Your task to perform on an android device: turn on the 24-hour format for clock Image 0: 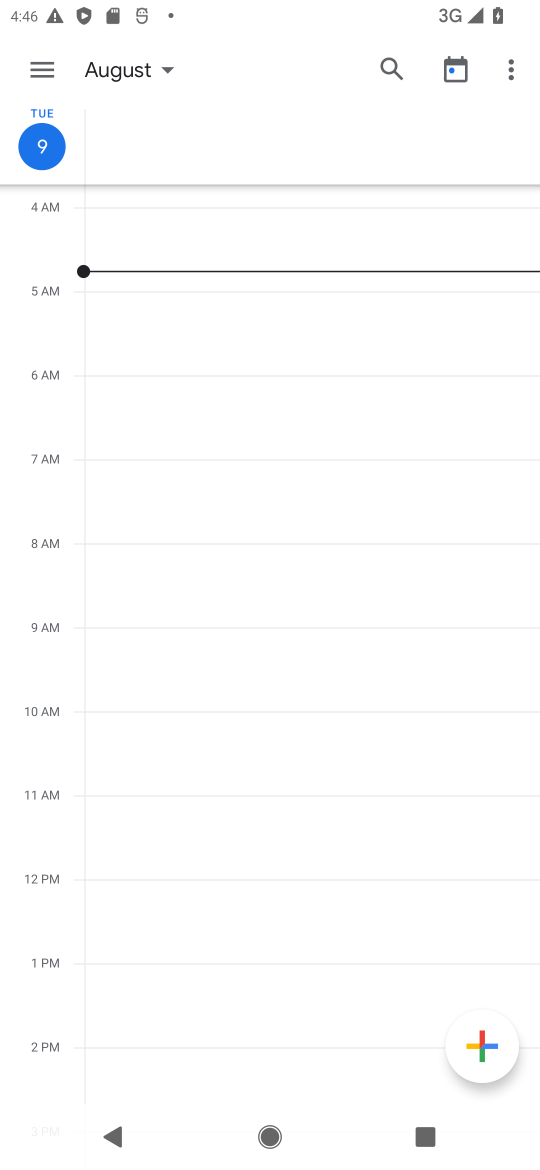
Step 0: press home button
Your task to perform on an android device: turn on the 24-hour format for clock Image 1: 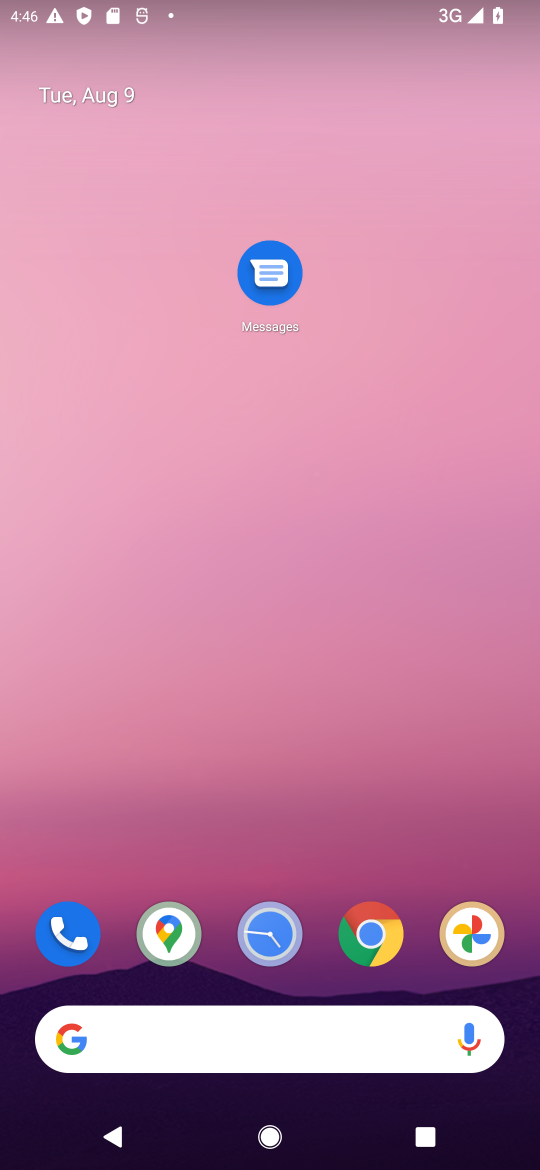
Step 1: click (278, 961)
Your task to perform on an android device: turn on the 24-hour format for clock Image 2: 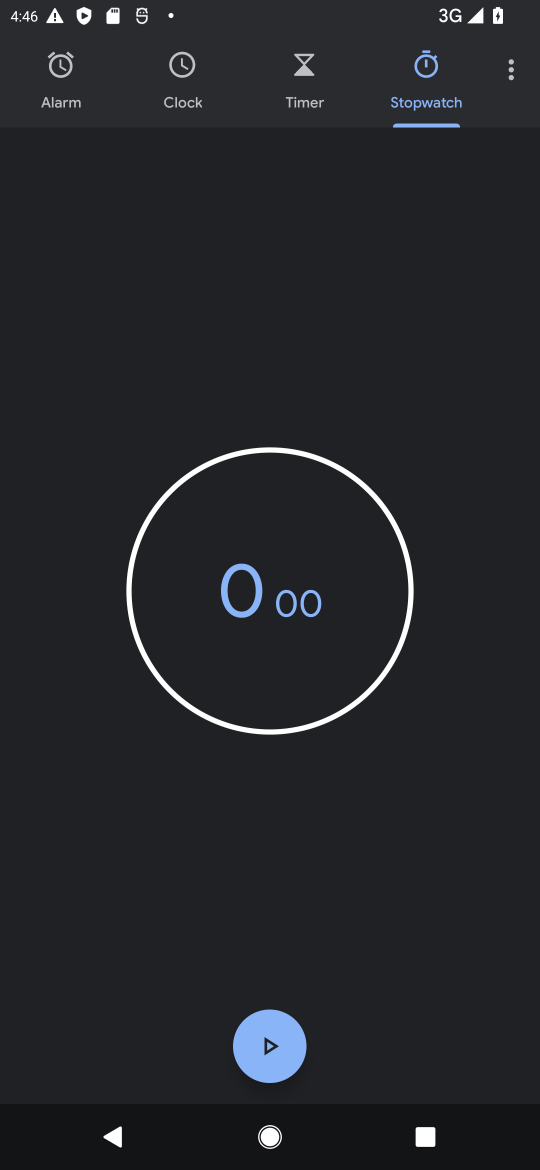
Step 2: click (517, 66)
Your task to perform on an android device: turn on the 24-hour format for clock Image 3: 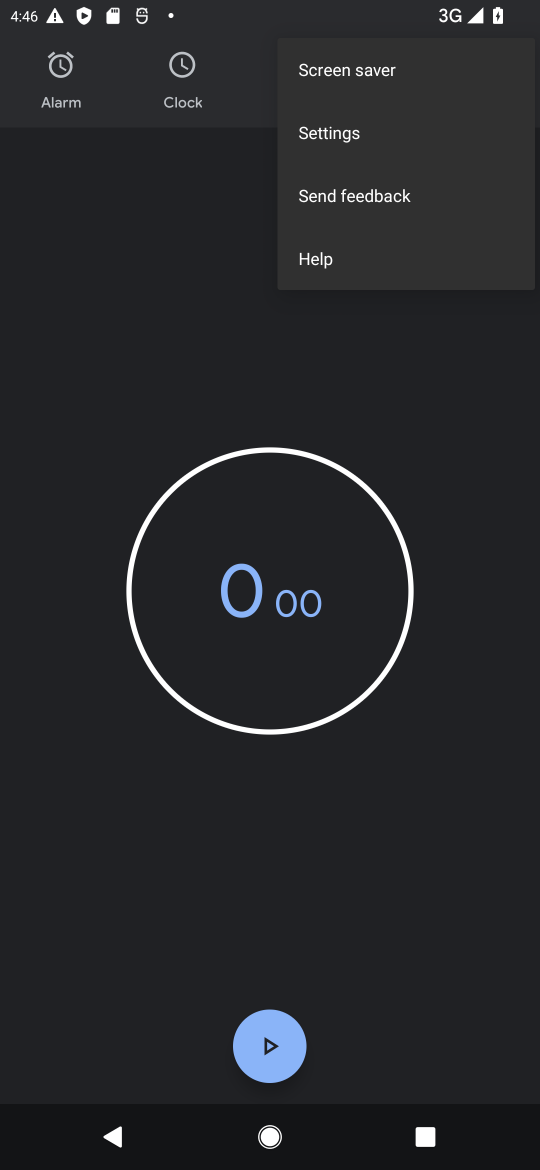
Step 3: click (355, 149)
Your task to perform on an android device: turn on the 24-hour format for clock Image 4: 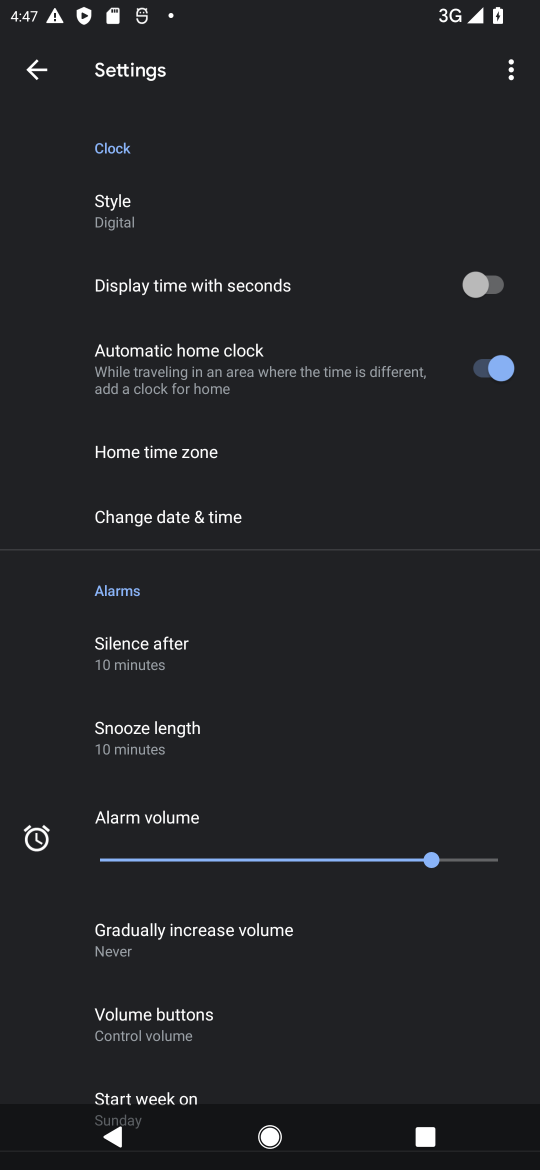
Step 4: click (241, 495)
Your task to perform on an android device: turn on the 24-hour format for clock Image 5: 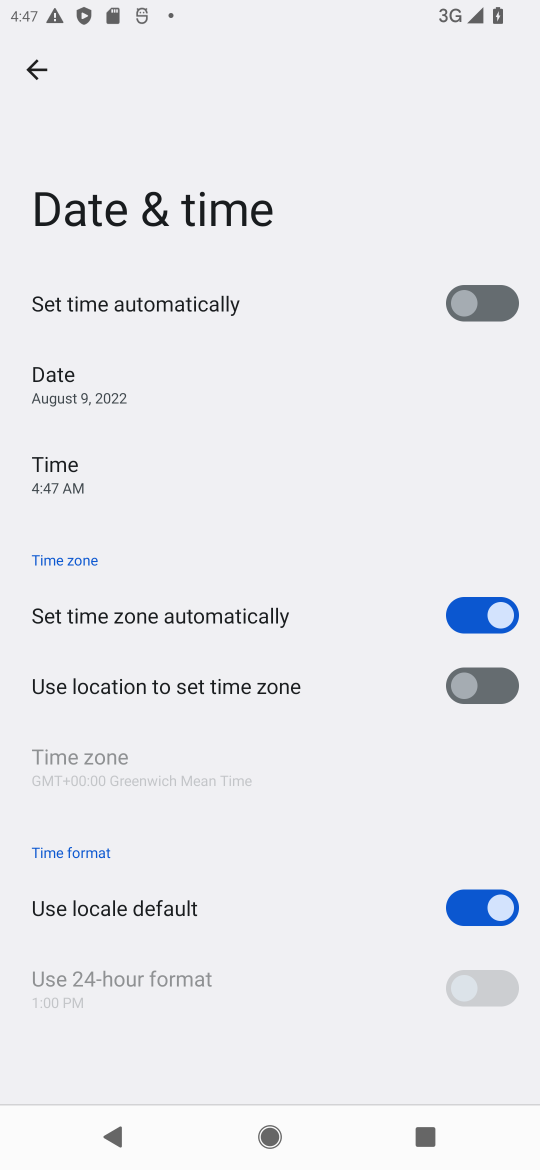
Step 5: task complete